Your task to perform on an android device: Add "jbl charge 4" to the cart on bestbuy Image 0: 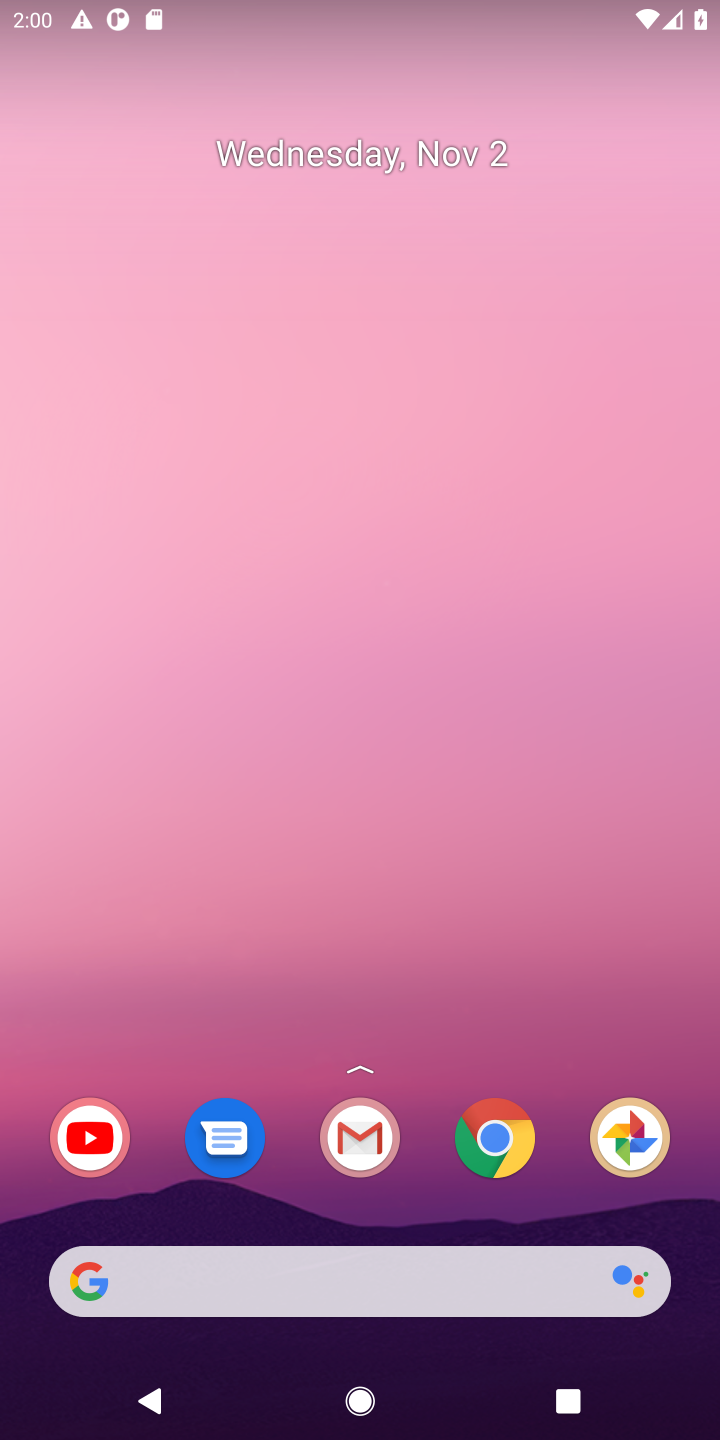
Step 0: press home button
Your task to perform on an android device: Add "jbl charge 4" to the cart on bestbuy Image 1: 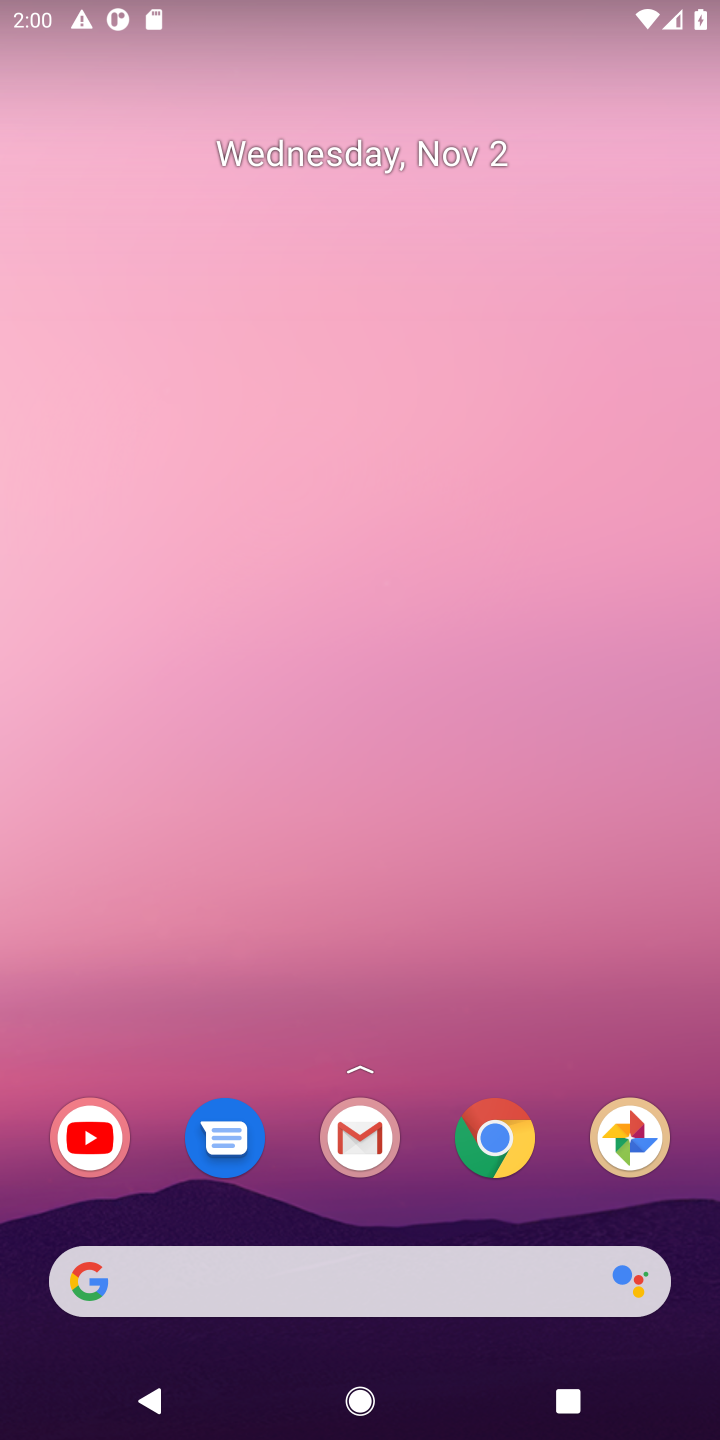
Step 1: click (164, 1279)
Your task to perform on an android device: Add "jbl charge 4" to the cart on bestbuy Image 2: 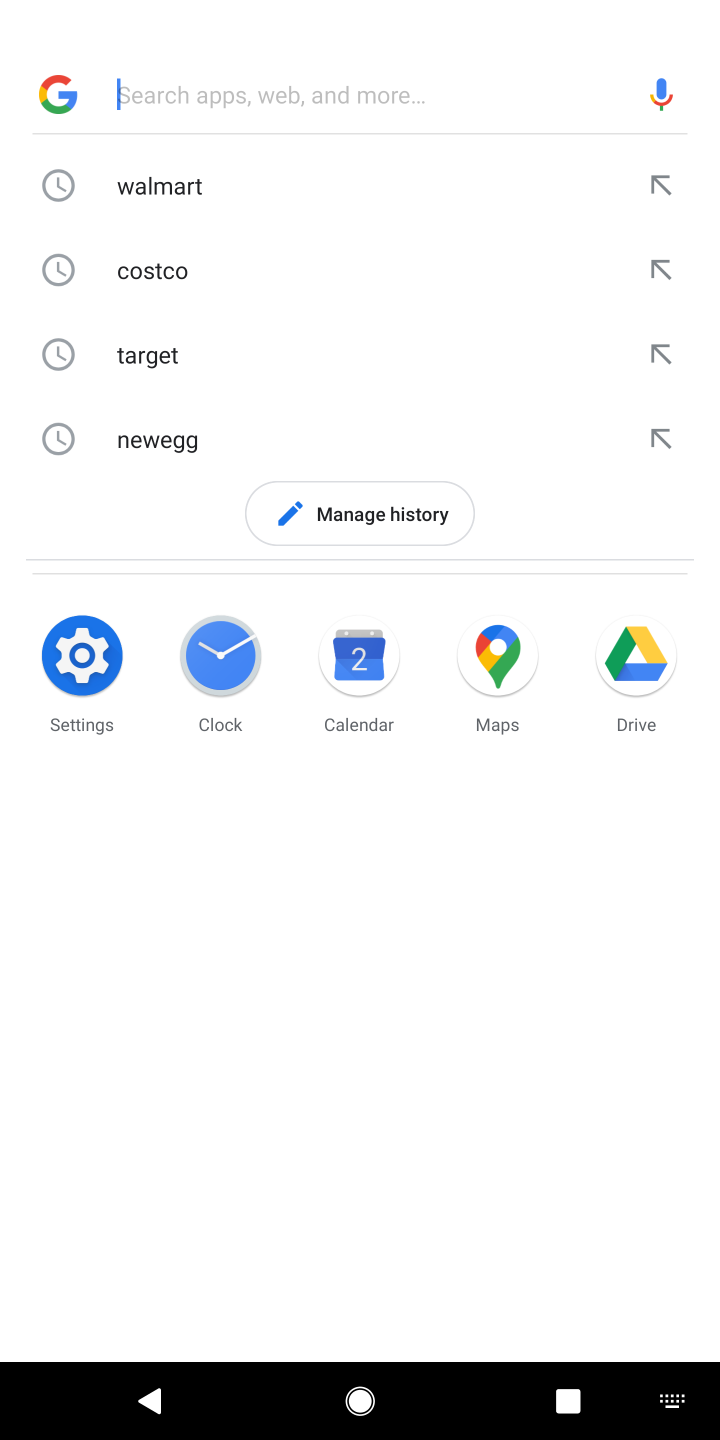
Step 2: type " bestbuy"
Your task to perform on an android device: Add "jbl charge 4" to the cart on bestbuy Image 3: 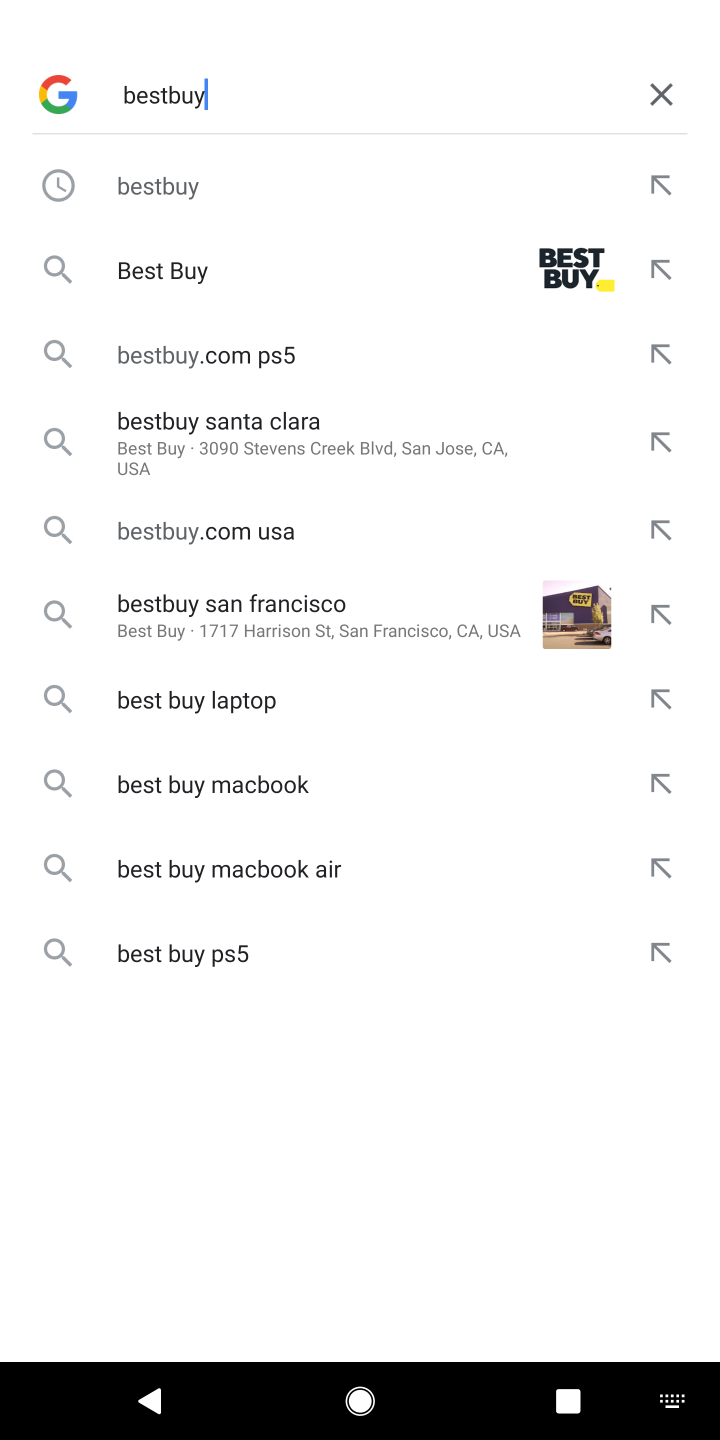
Step 3: press enter
Your task to perform on an android device: Add "jbl charge 4" to the cart on bestbuy Image 4: 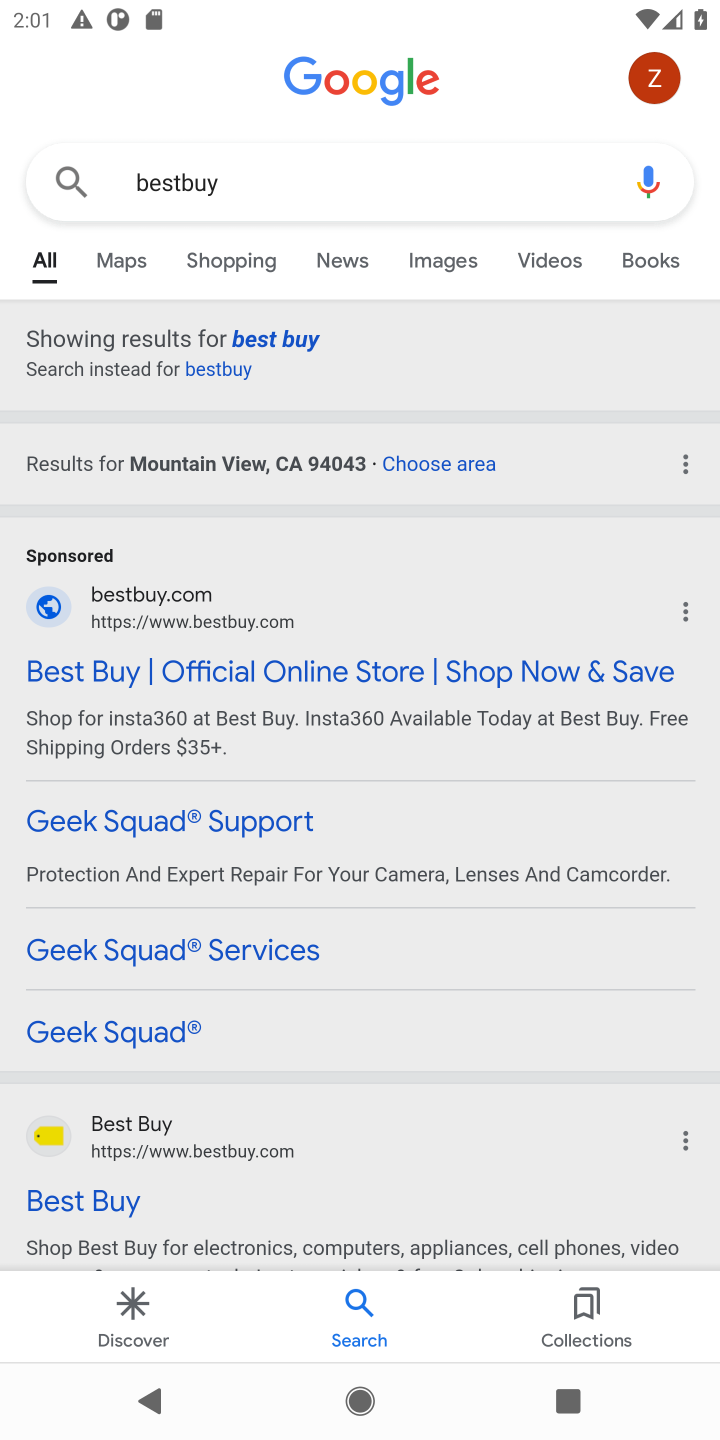
Step 4: click (301, 673)
Your task to perform on an android device: Add "jbl charge 4" to the cart on bestbuy Image 5: 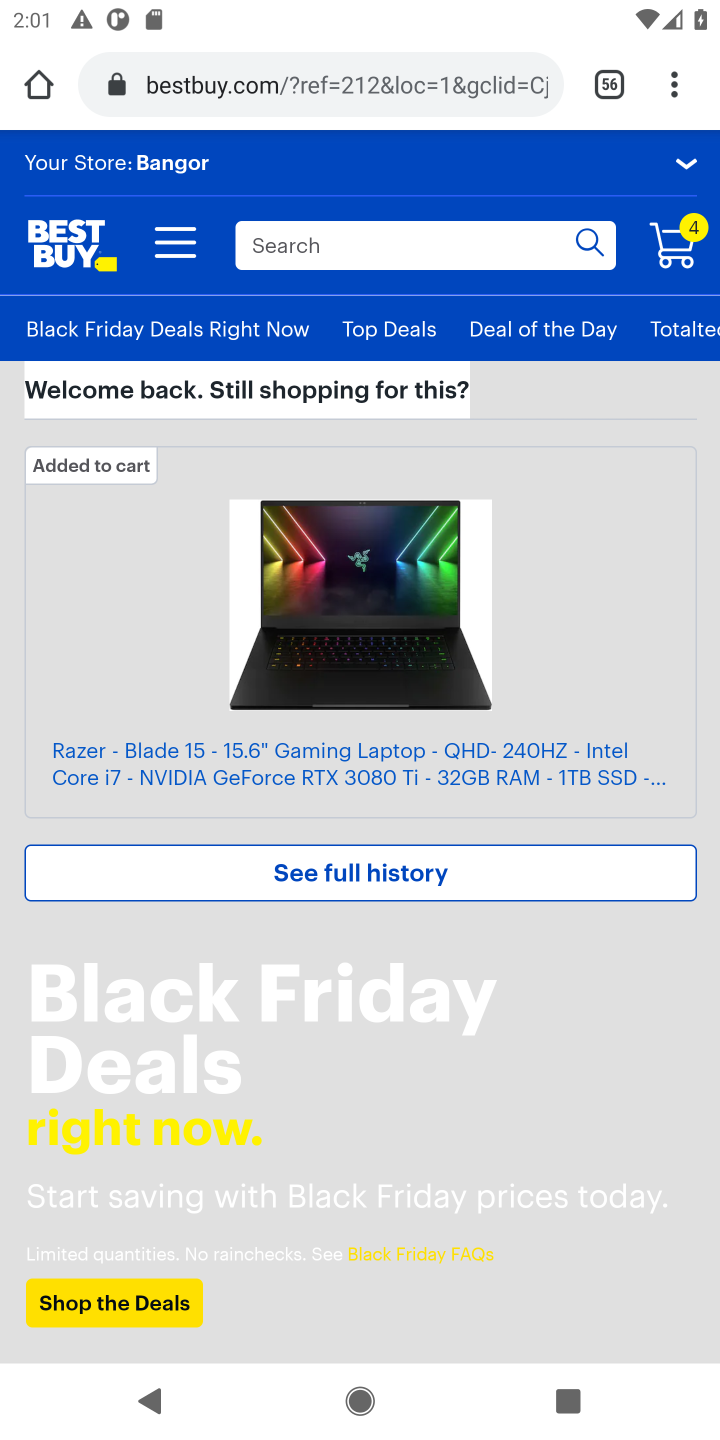
Step 5: click (335, 232)
Your task to perform on an android device: Add "jbl charge 4" to the cart on bestbuy Image 6: 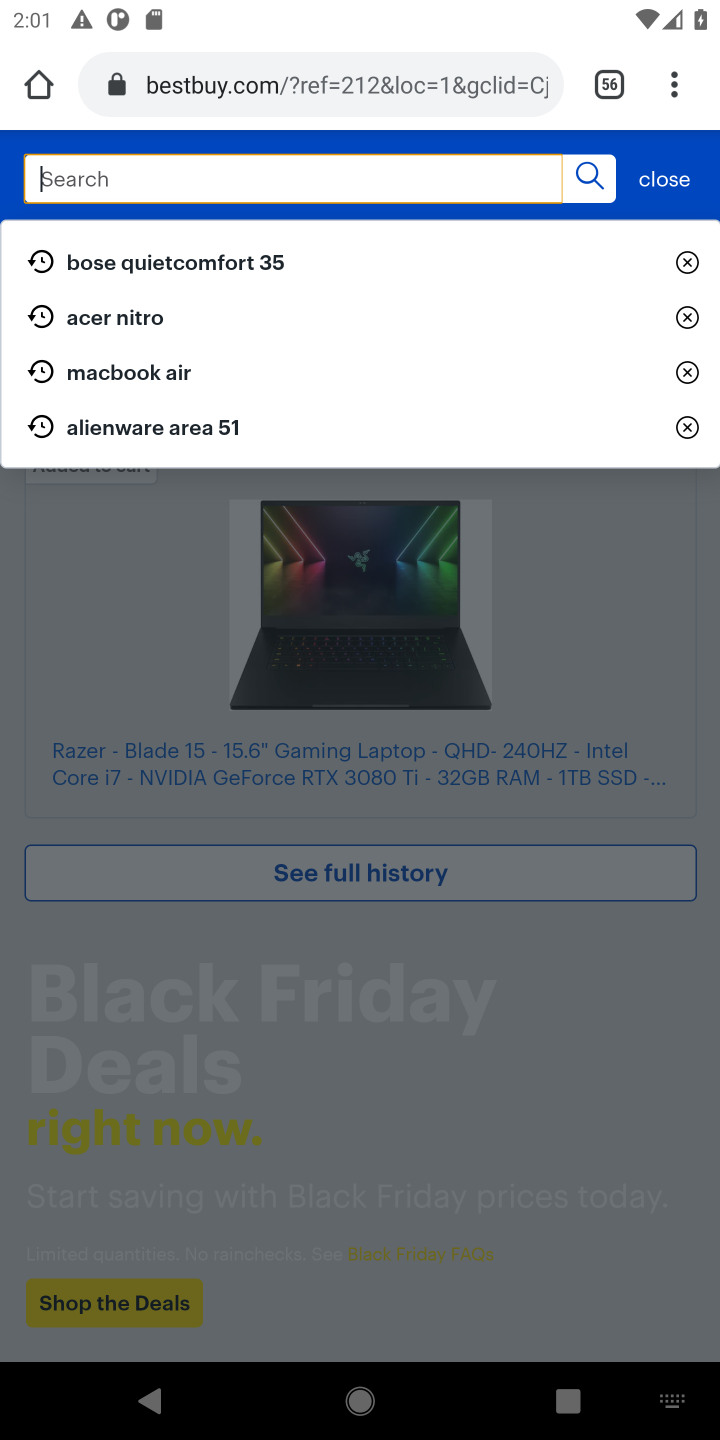
Step 6: press enter
Your task to perform on an android device: Add "jbl charge 4" to the cart on bestbuy Image 7: 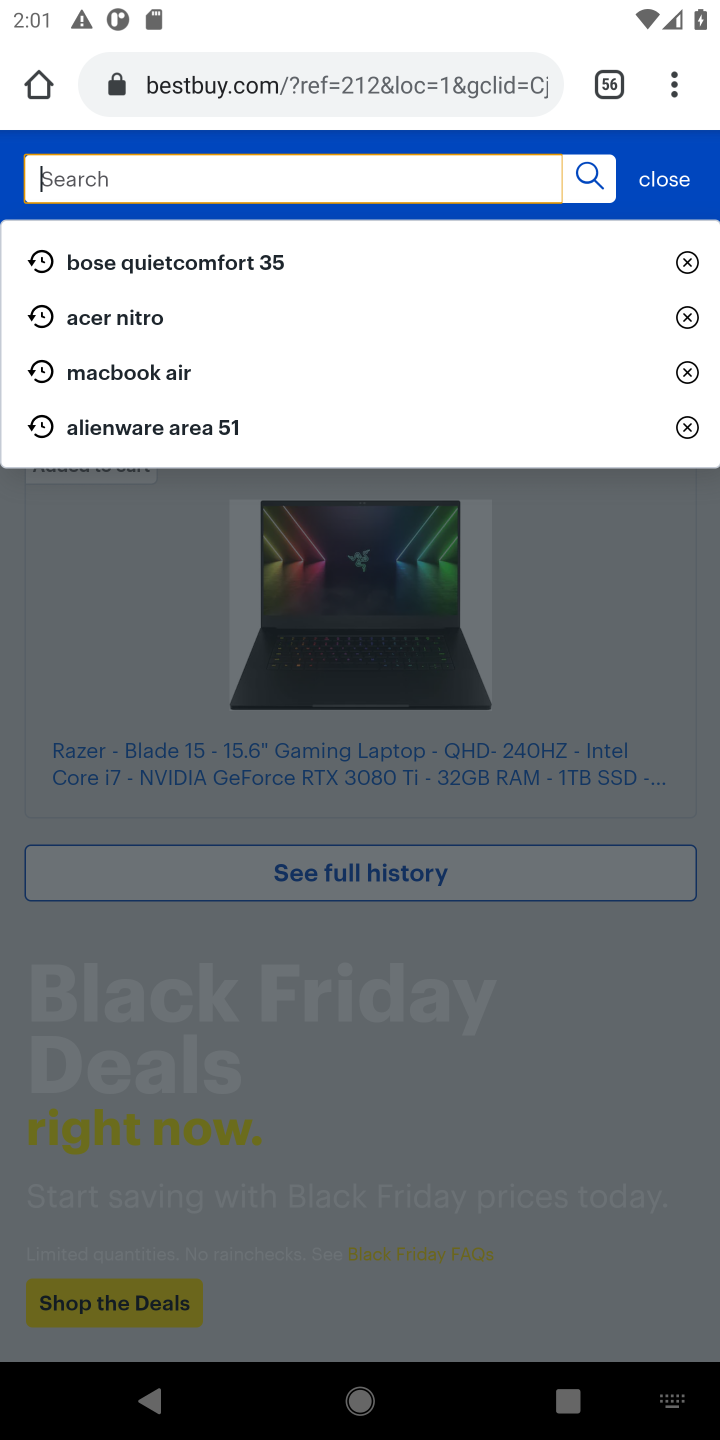
Step 7: type "jbl charge 4"
Your task to perform on an android device: Add "jbl charge 4" to the cart on bestbuy Image 8: 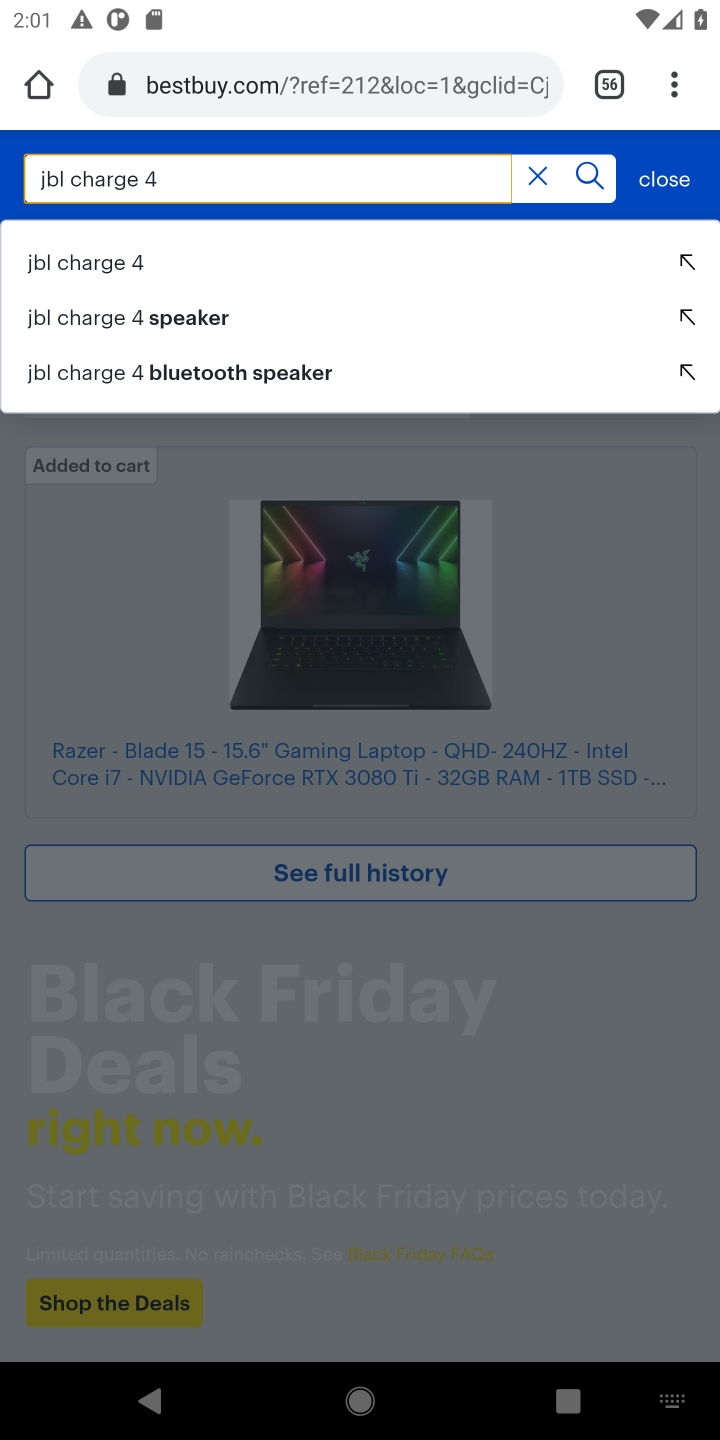
Step 8: press enter
Your task to perform on an android device: Add "jbl charge 4" to the cart on bestbuy Image 9: 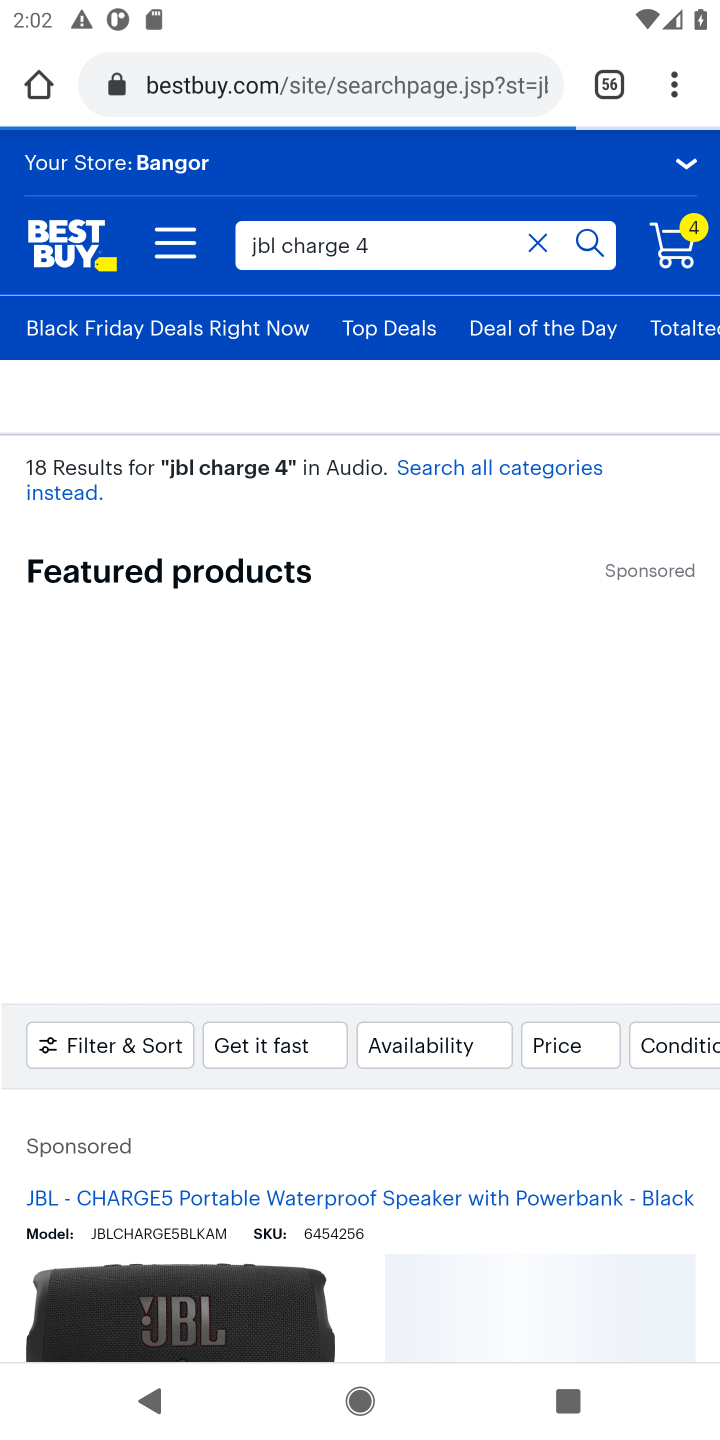
Step 9: task complete